Your task to perform on an android device: Open Yahoo.com Image 0: 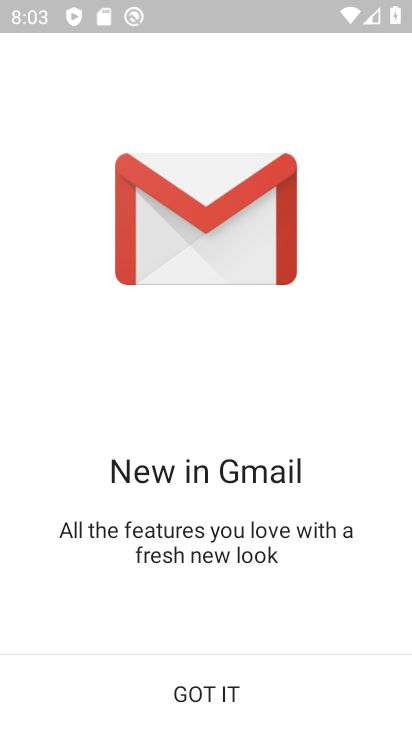
Step 0: press home button
Your task to perform on an android device: Open Yahoo.com Image 1: 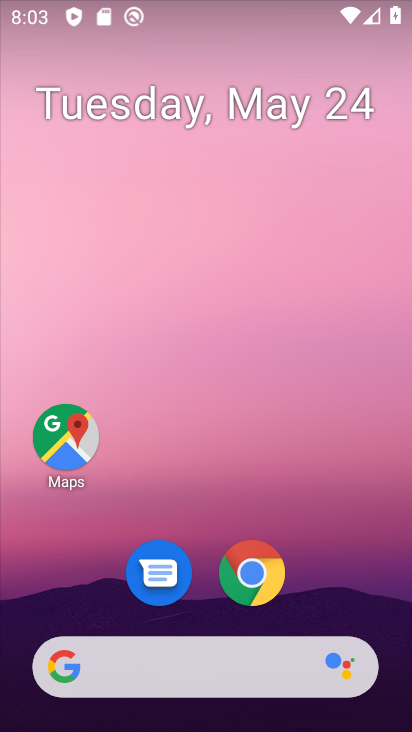
Step 1: click (252, 572)
Your task to perform on an android device: Open Yahoo.com Image 2: 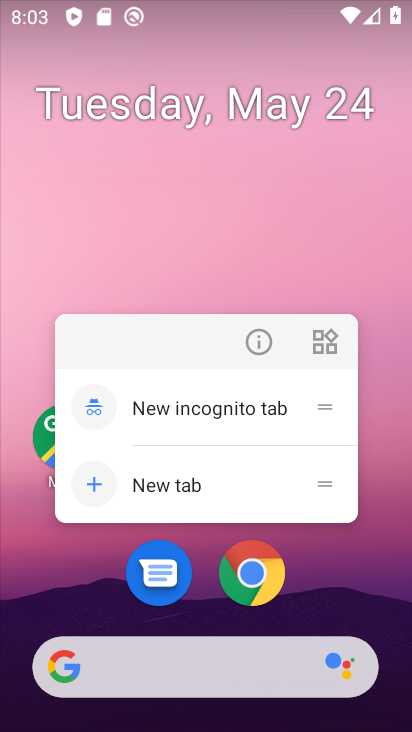
Step 2: click (267, 568)
Your task to perform on an android device: Open Yahoo.com Image 3: 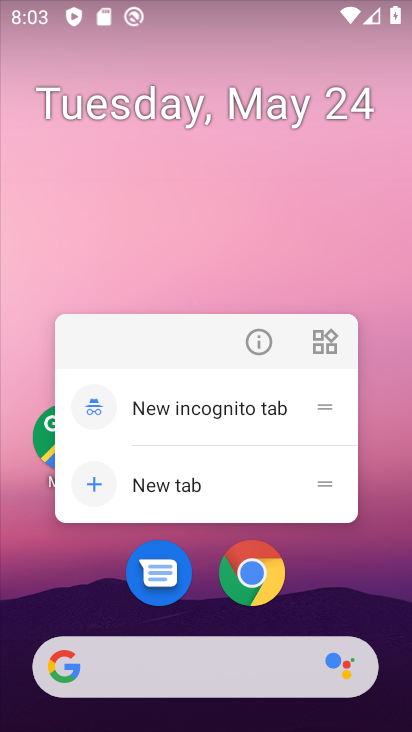
Step 3: click (256, 569)
Your task to perform on an android device: Open Yahoo.com Image 4: 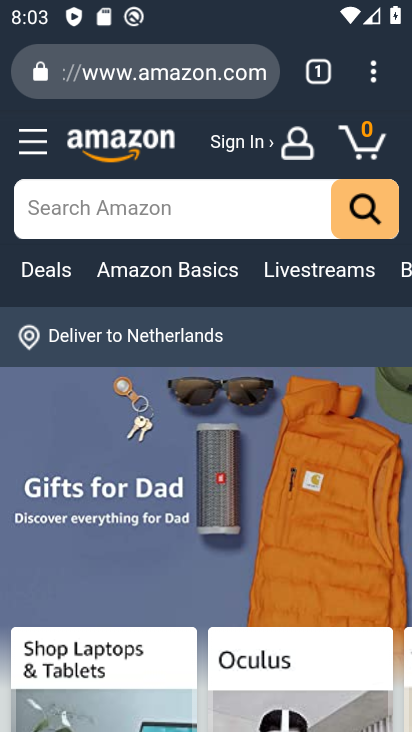
Step 4: click (184, 67)
Your task to perform on an android device: Open Yahoo.com Image 5: 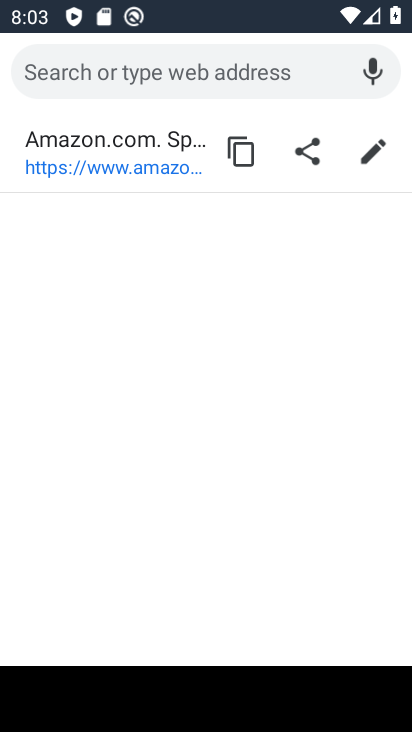
Step 5: type "yahoo.com"
Your task to perform on an android device: Open Yahoo.com Image 6: 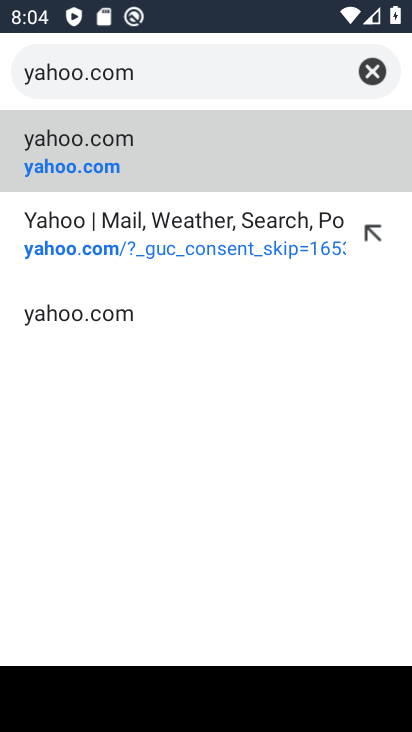
Step 6: click (80, 168)
Your task to perform on an android device: Open Yahoo.com Image 7: 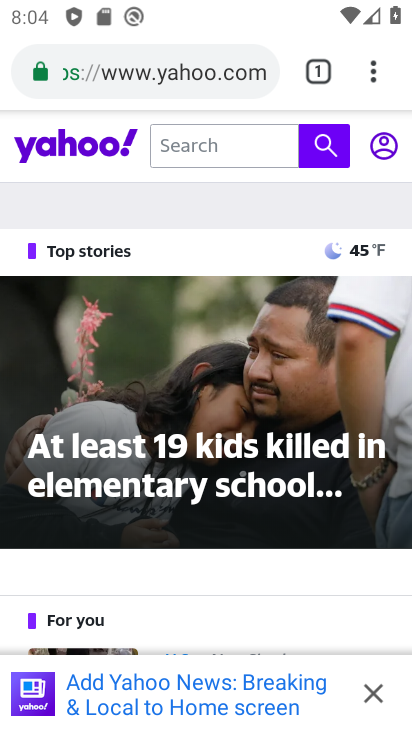
Step 7: task complete